Your task to perform on an android device: Open my contact list Image 0: 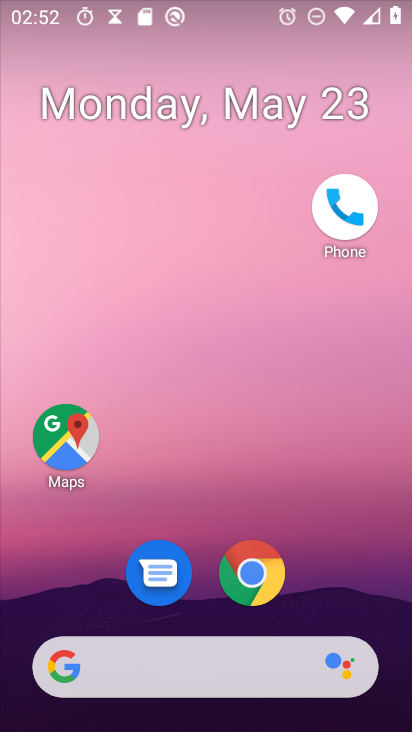
Step 0: press home button
Your task to perform on an android device: Open my contact list Image 1: 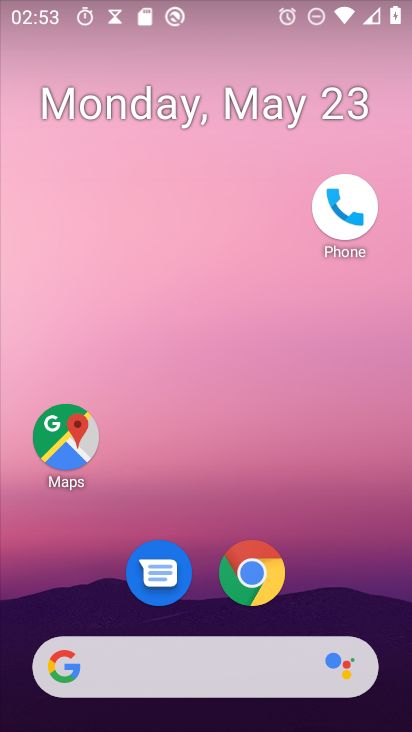
Step 1: drag from (383, 444) to (402, 231)
Your task to perform on an android device: Open my contact list Image 2: 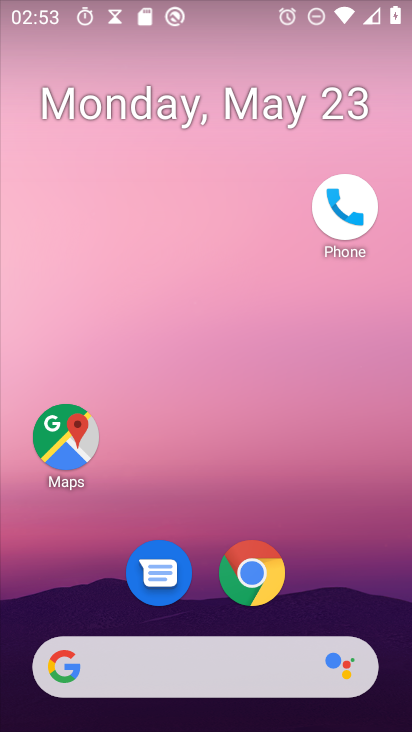
Step 2: drag from (165, 663) to (312, 150)
Your task to perform on an android device: Open my contact list Image 3: 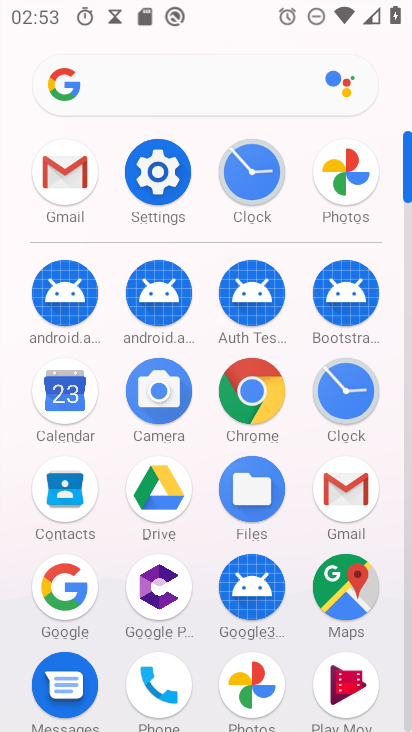
Step 3: click (71, 497)
Your task to perform on an android device: Open my contact list Image 4: 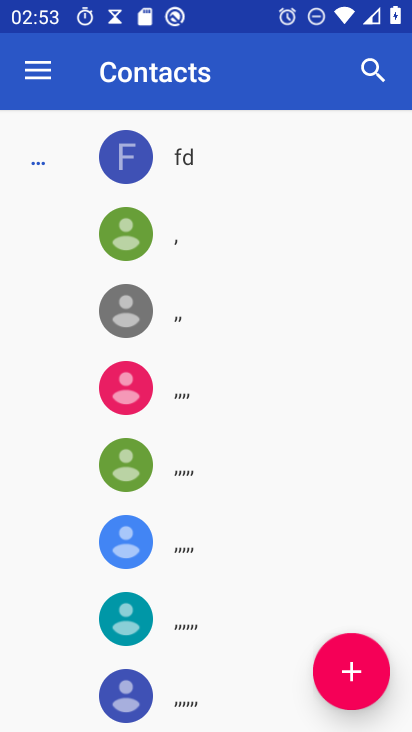
Step 4: task complete